Your task to perform on an android device: Open maps Image 0: 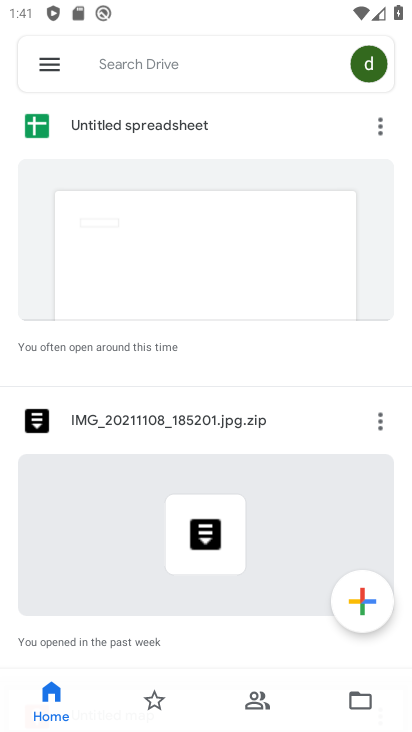
Step 0: press home button
Your task to perform on an android device: Open maps Image 1: 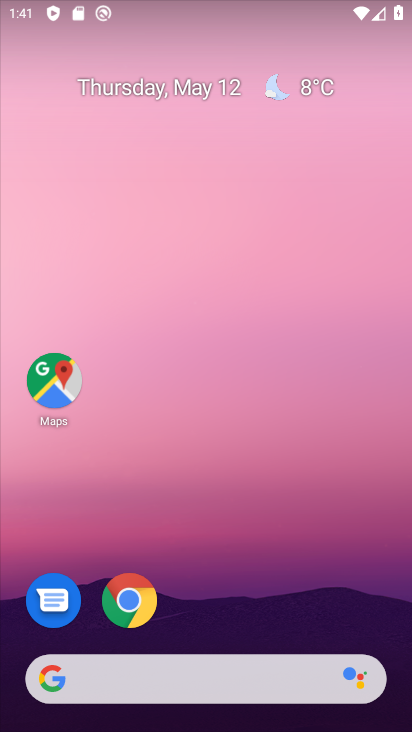
Step 1: click (65, 374)
Your task to perform on an android device: Open maps Image 2: 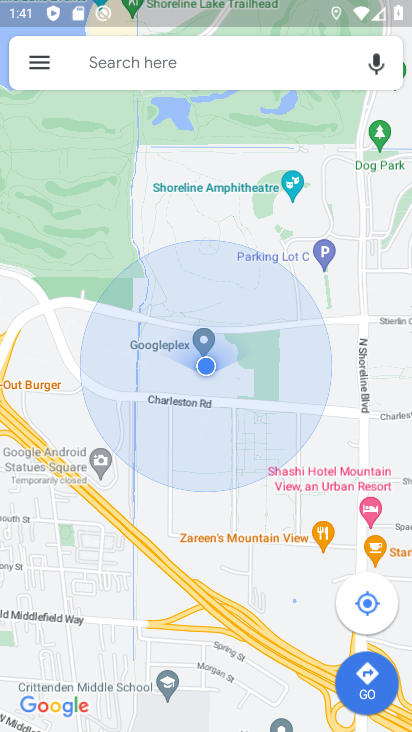
Step 2: task complete